Your task to perform on an android device: Toggle the flashlight Image 0: 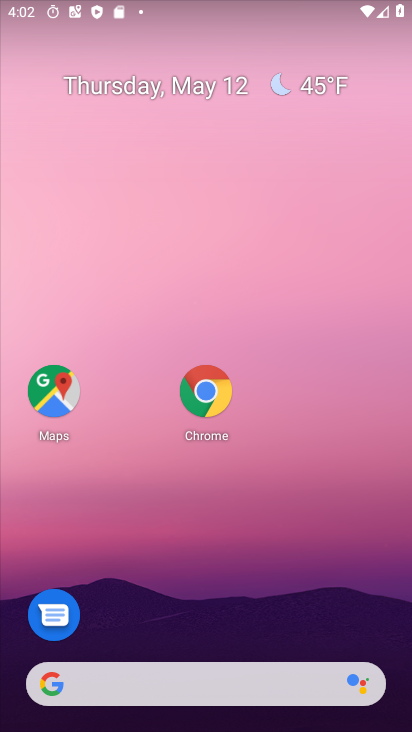
Step 0: drag from (221, 623) to (222, 152)
Your task to perform on an android device: Toggle the flashlight Image 1: 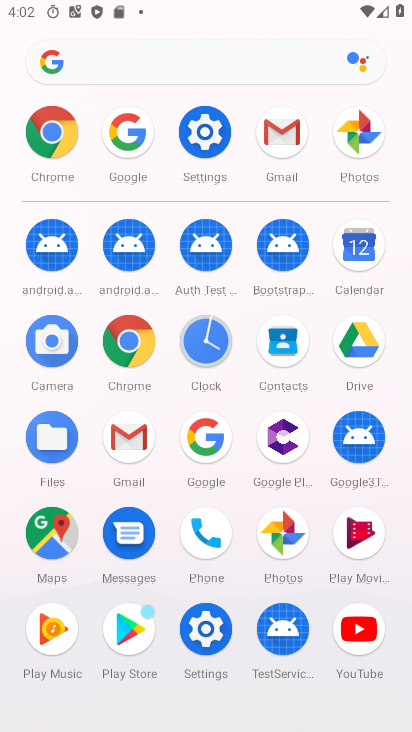
Step 1: click (205, 132)
Your task to perform on an android device: Toggle the flashlight Image 2: 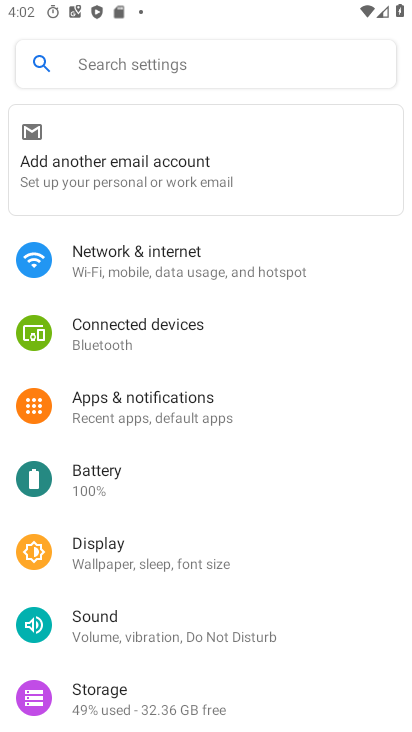
Step 2: click (186, 70)
Your task to perform on an android device: Toggle the flashlight Image 3: 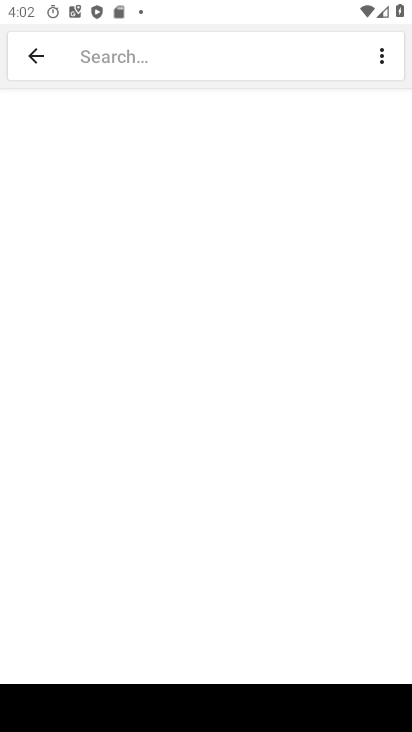
Step 3: type "flash"
Your task to perform on an android device: Toggle the flashlight Image 4: 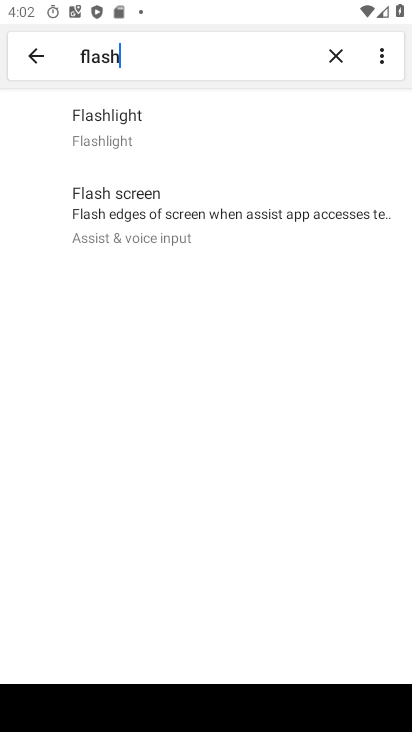
Step 4: click (131, 129)
Your task to perform on an android device: Toggle the flashlight Image 5: 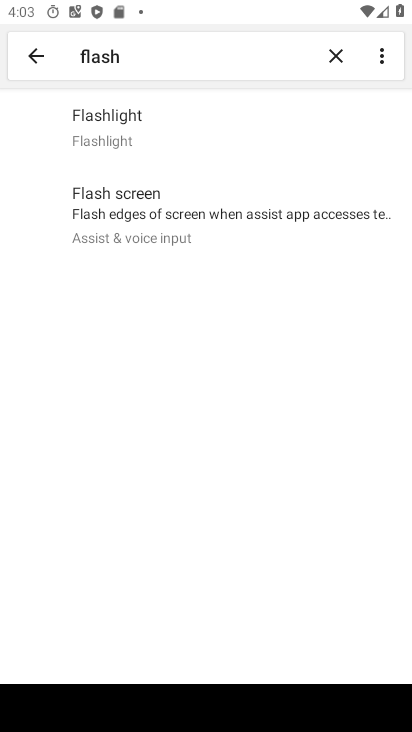
Step 5: task complete